Your task to perform on an android device: stop showing notifications on the lock screen Image 0: 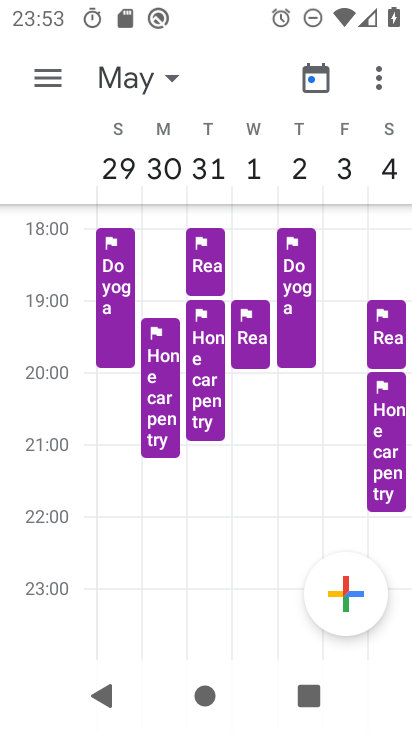
Step 0: press home button
Your task to perform on an android device: stop showing notifications on the lock screen Image 1: 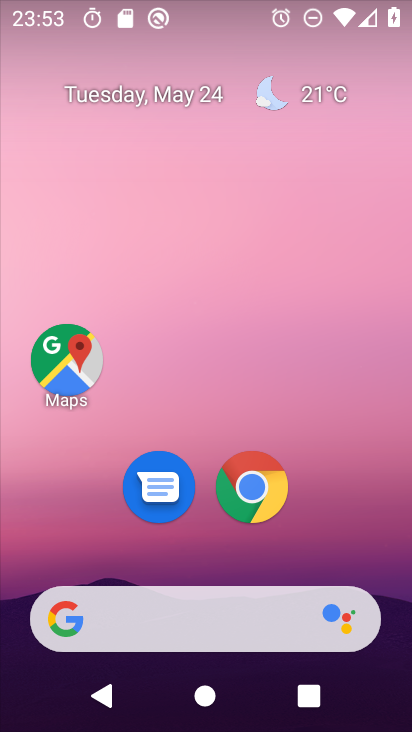
Step 1: drag from (360, 572) to (356, 27)
Your task to perform on an android device: stop showing notifications on the lock screen Image 2: 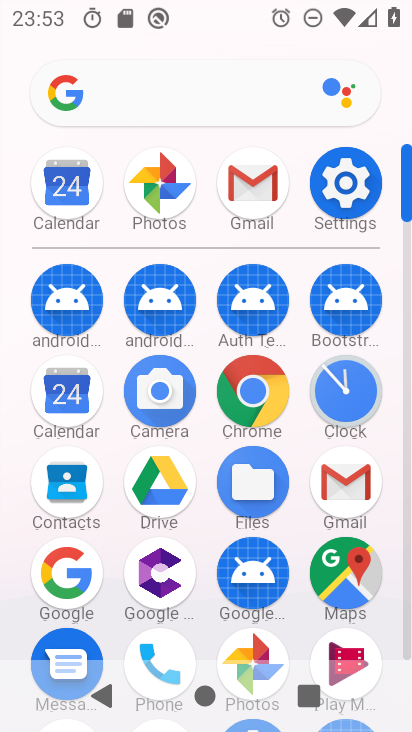
Step 2: click (346, 185)
Your task to perform on an android device: stop showing notifications on the lock screen Image 3: 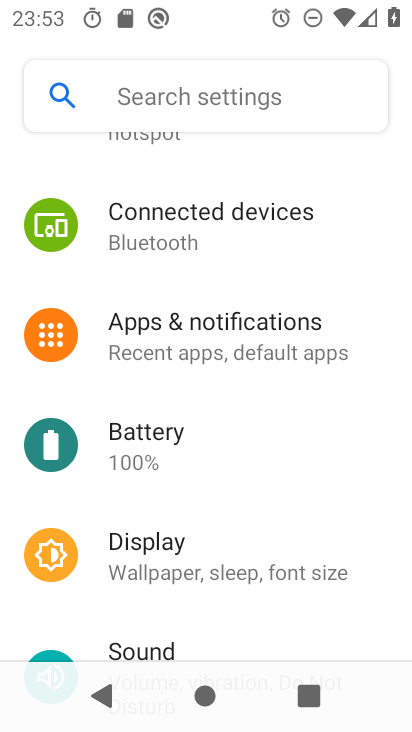
Step 3: click (173, 339)
Your task to perform on an android device: stop showing notifications on the lock screen Image 4: 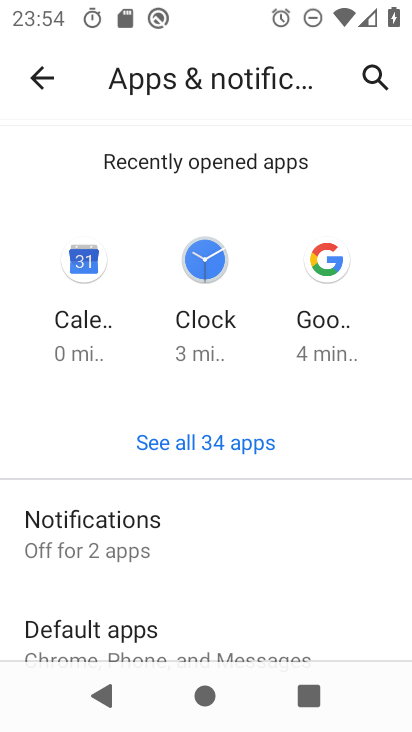
Step 4: click (112, 540)
Your task to perform on an android device: stop showing notifications on the lock screen Image 5: 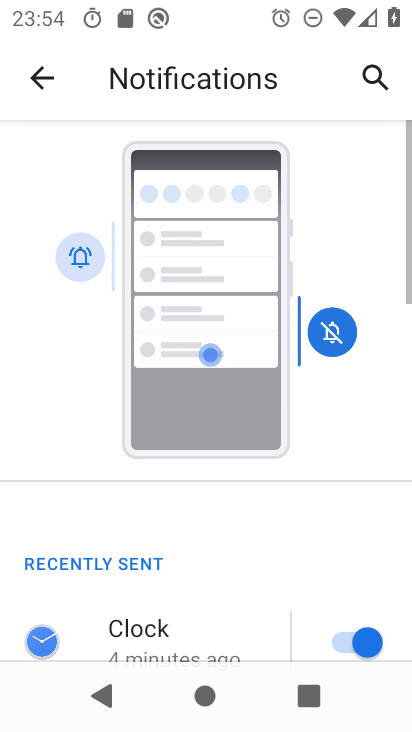
Step 5: drag from (178, 578) to (134, 6)
Your task to perform on an android device: stop showing notifications on the lock screen Image 6: 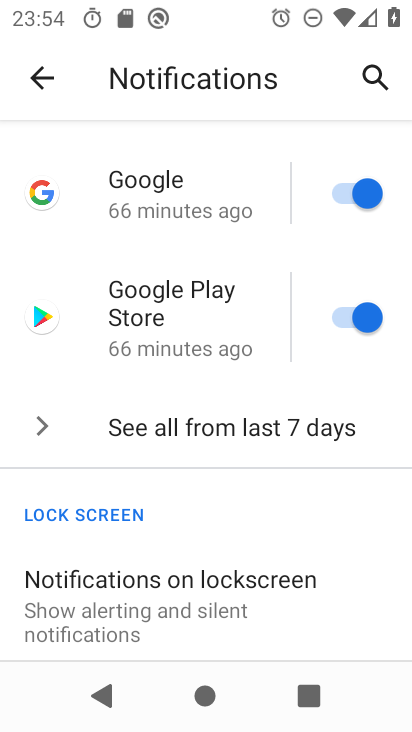
Step 6: drag from (132, 610) to (135, 344)
Your task to perform on an android device: stop showing notifications on the lock screen Image 7: 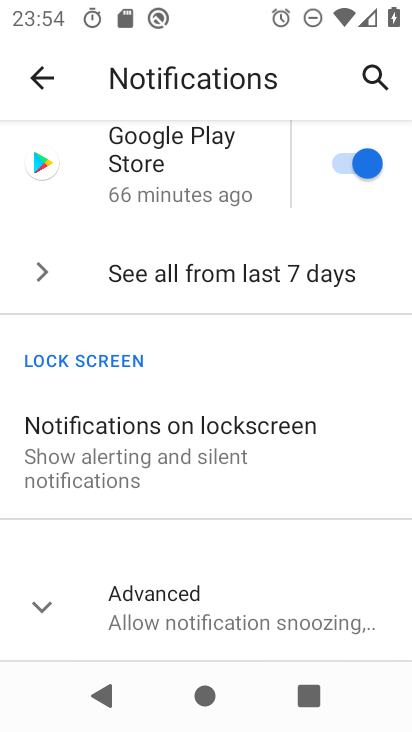
Step 7: click (106, 437)
Your task to perform on an android device: stop showing notifications on the lock screen Image 8: 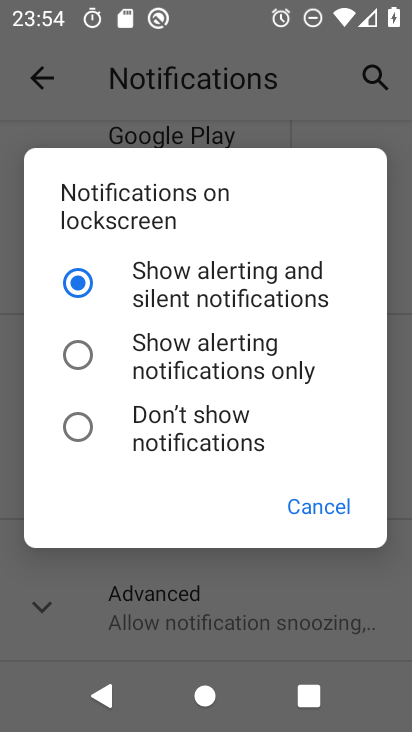
Step 8: click (79, 432)
Your task to perform on an android device: stop showing notifications on the lock screen Image 9: 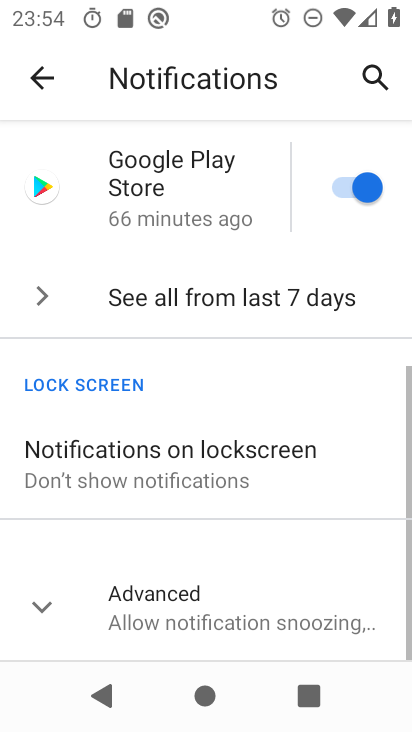
Step 9: task complete